Your task to perform on an android device: find snoozed emails in the gmail app Image 0: 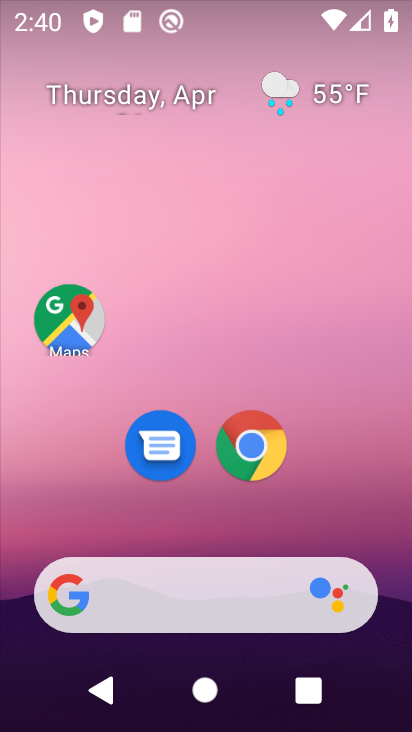
Step 0: drag from (226, 722) to (223, 32)
Your task to perform on an android device: find snoozed emails in the gmail app Image 1: 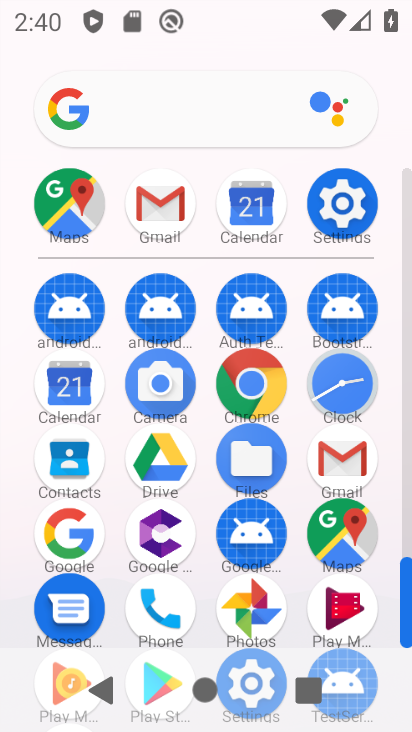
Step 1: click (344, 470)
Your task to perform on an android device: find snoozed emails in the gmail app Image 2: 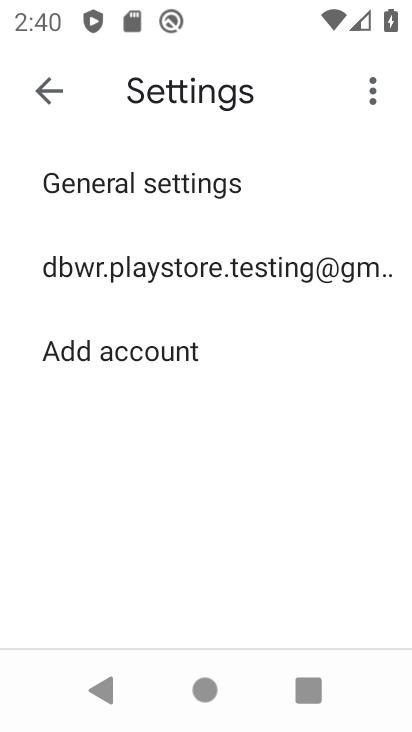
Step 2: click (51, 86)
Your task to perform on an android device: find snoozed emails in the gmail app Image 3: 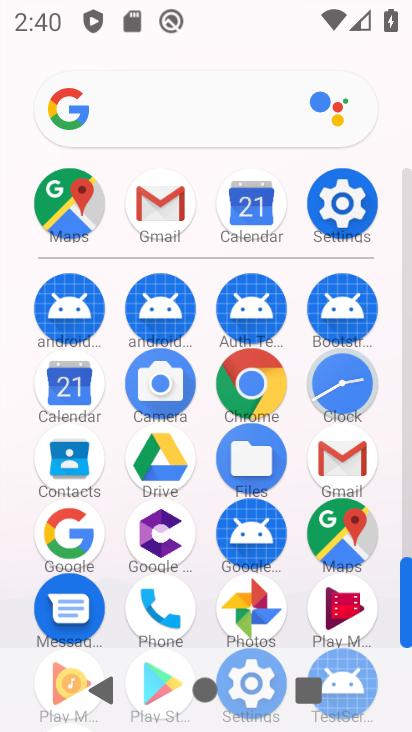
Step 3: click (164, 199)
Your task to perform on an android device: find snoozed emails in the gmail app Image 4: 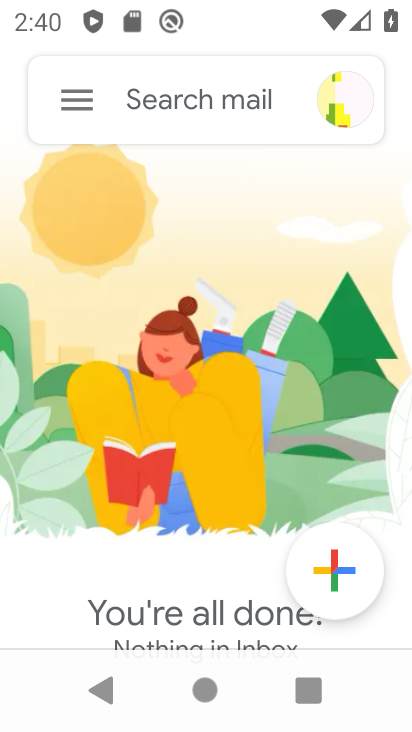
Step 4: click (80, 97)
Your task to perform on an android device: find snoozed emails in the gmail app Image 5: 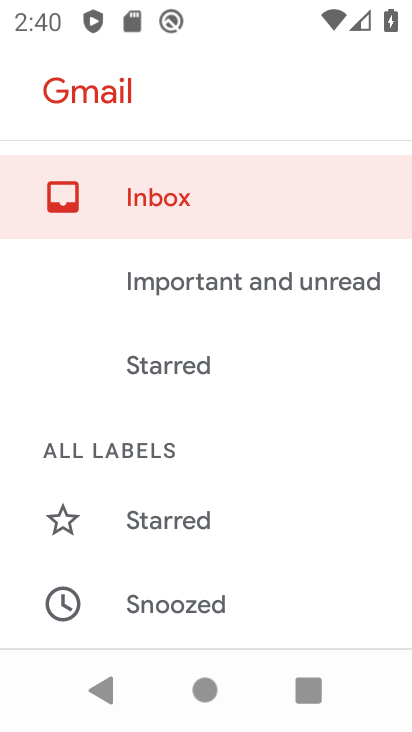
Step 5: click (187, 605)
Your task to perform on an android device: find snoozed emails in the gmail app Image 6: 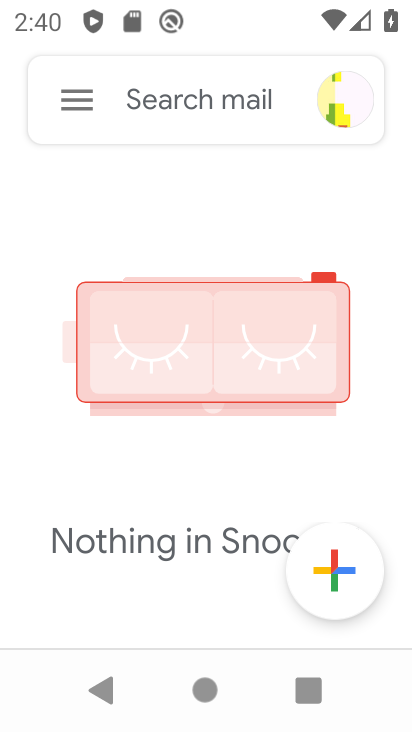
Step 6: task complete